Your task to perform on an android device: Open calendar and show me the third week of next month Image 0: 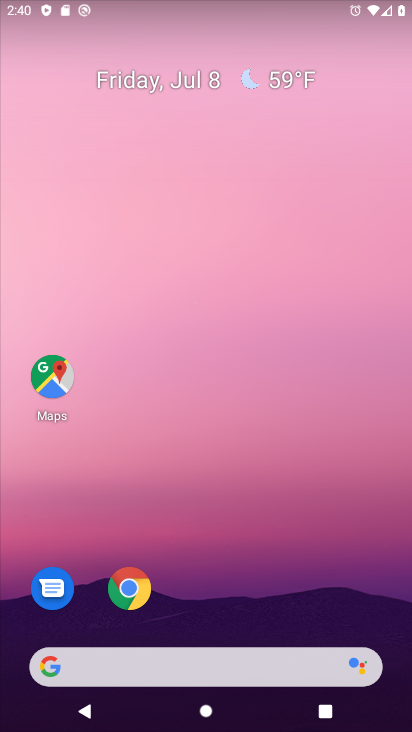
Step 0: drag from (201, 623) to (269, 39)
Your task to perform on an android device: Open calendar and show me the third week of next month Image 1: 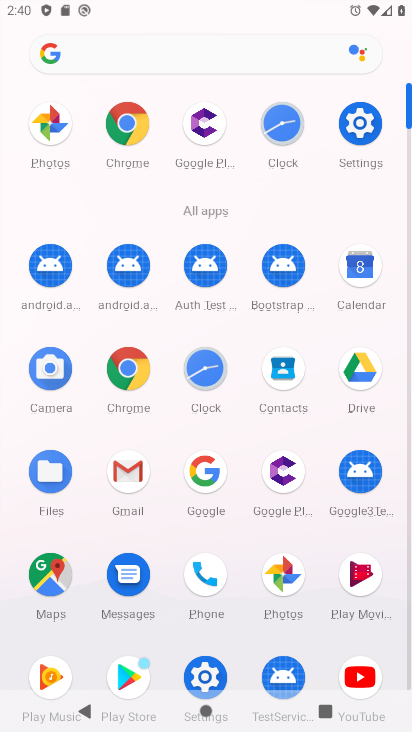
Step 1: click (353, 263)
Your task to perform on an android device: Open calendar and show me the third week of next month Image 2: 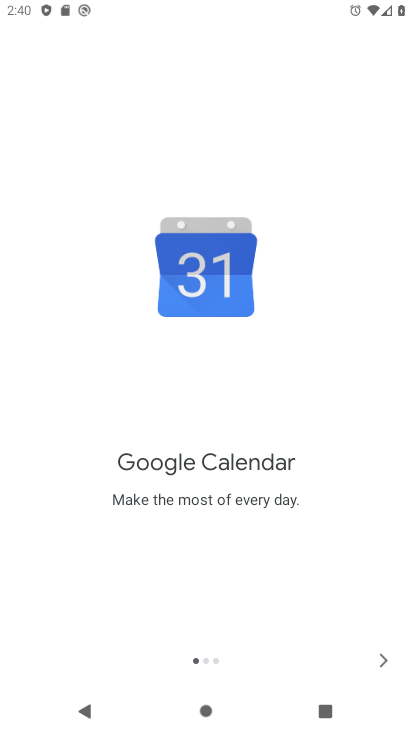
Step 2: click (383, 663)
Your task to perform on an android device: Open calendar and show me the third week of next month Image 3: 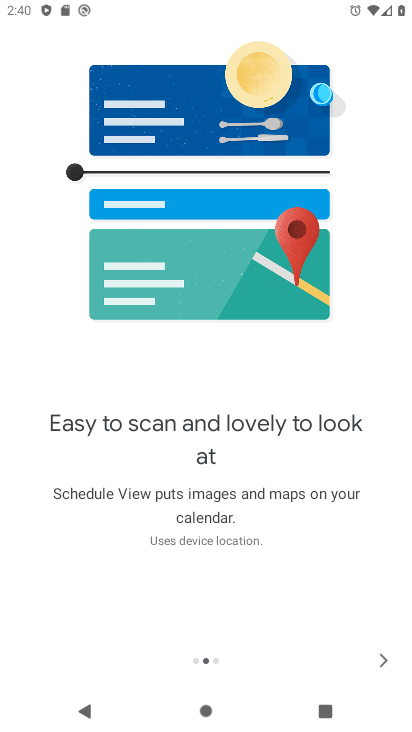
Step 3: click (383, 663)
Your task to perform on an android device: Open calendar and show me the third week of next month Image 4: 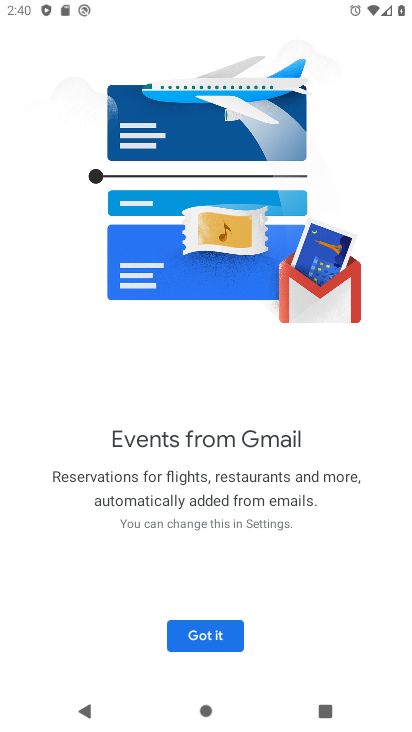
Step 4: click (197, 629)
Your task to perform on an android device: Open calendar and show me the third week of next month Image 5: 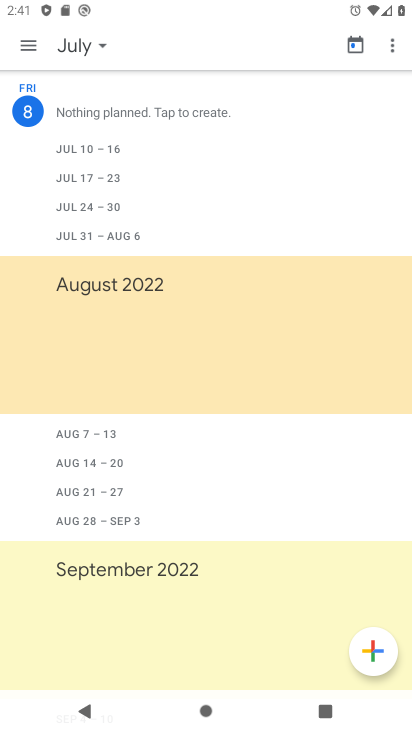
Step 5: click (22, 48)
Your task to perform on an android device: Open calendar and show me the third week of next month Image 6: 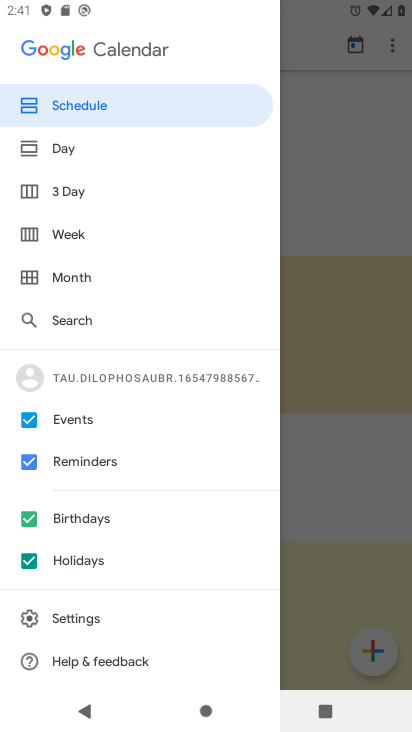
Step 6: click (78, 457)
Your task to perform on an android device: Open calendar and show me the third week of next month Image 7: 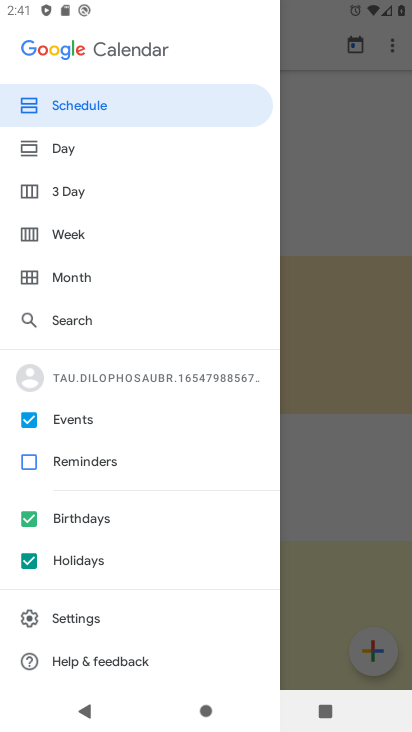
Step 7: click (90, 523)
Your task to perform on an android device: Open calendar and show me the third week of next month Image 8: 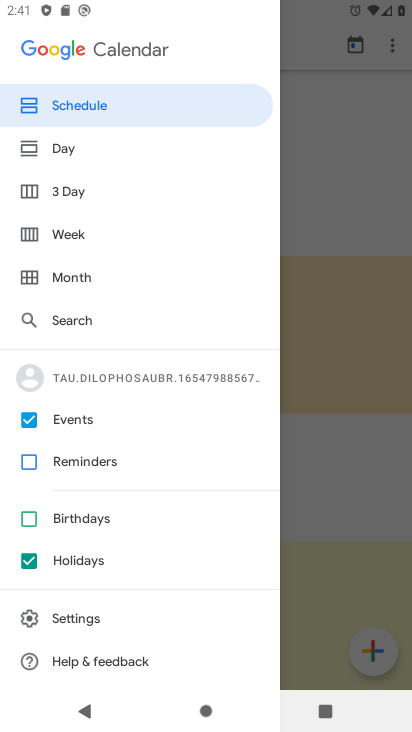
Step 8: click (85, 554)
Your task to perform on an android device: Open calendar and show me the third week of next month Image 9: 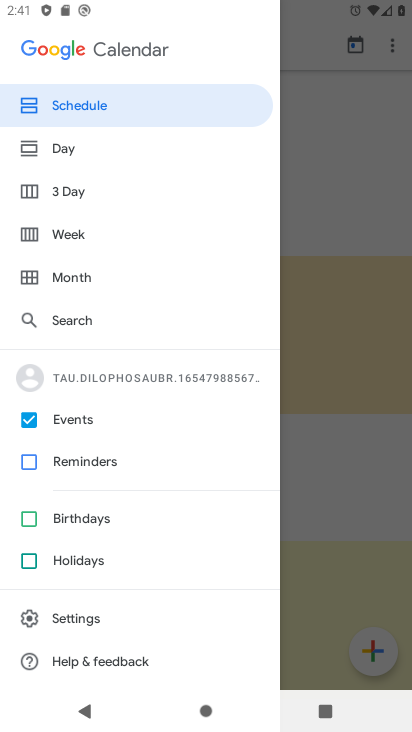
Step 9: click (81, 239)
Your task to perform on an android device: Open calendar and show me the third week of next month Image 10: 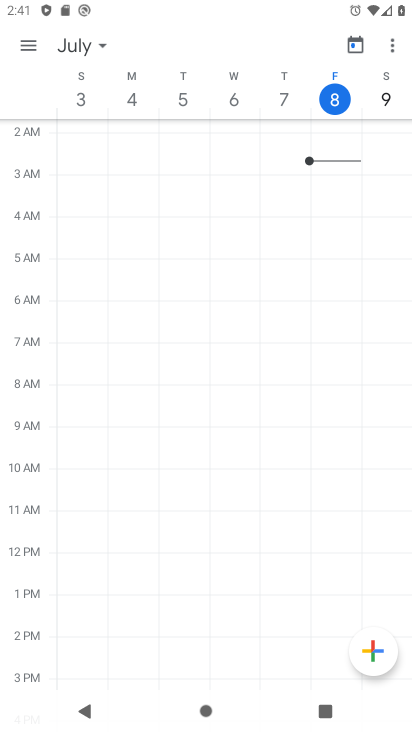
Step 10: click (88, 50)
Your task to perform on an android device: Open calendar and show me the third week of next month Image 11: 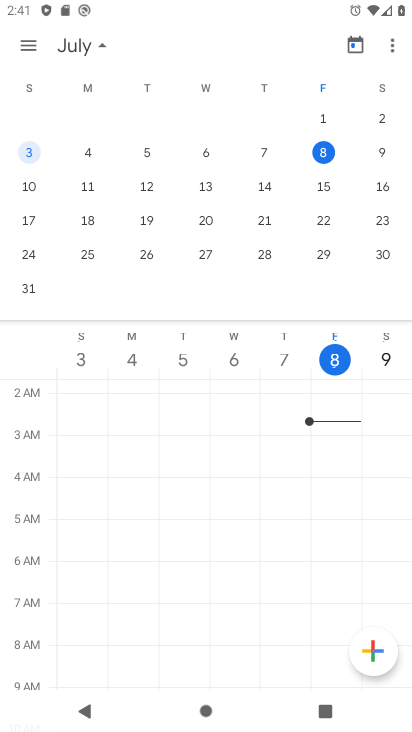
Step 11: drag from (331, 238) to (34, 274)
Your task to perform on an android device: Open calendar and show me the third week of next month Image 12: 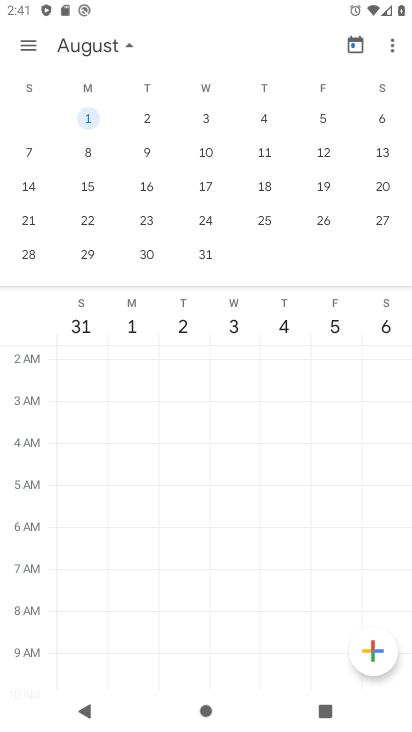
Step 12: click (24, 44)
Your task to perform on an android device: Open calendar and show me the third week of next month Image 13: 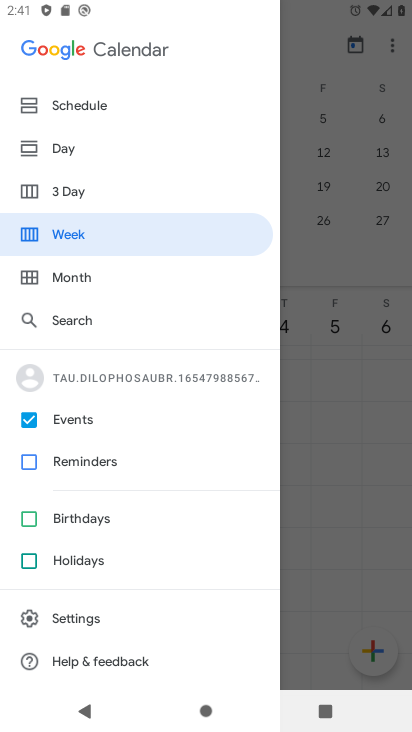
Step 13: click (101, 230)
Your task to perform on an android device: Open calendar and show me the third week of next month Image 14: 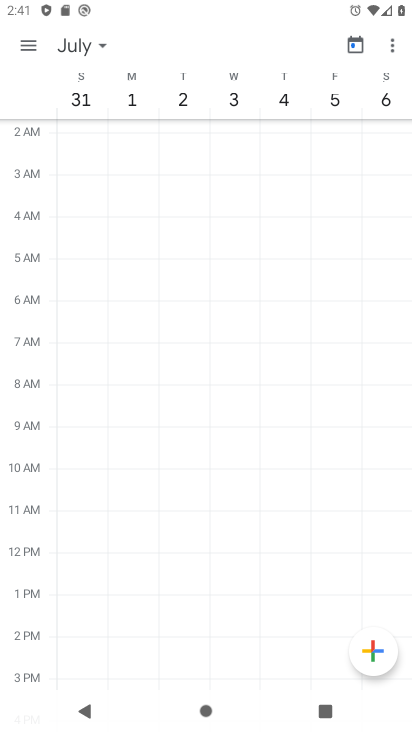
Step 14: task complete